Your task to perform on an android device: change your default location settings in chrome Image 0: 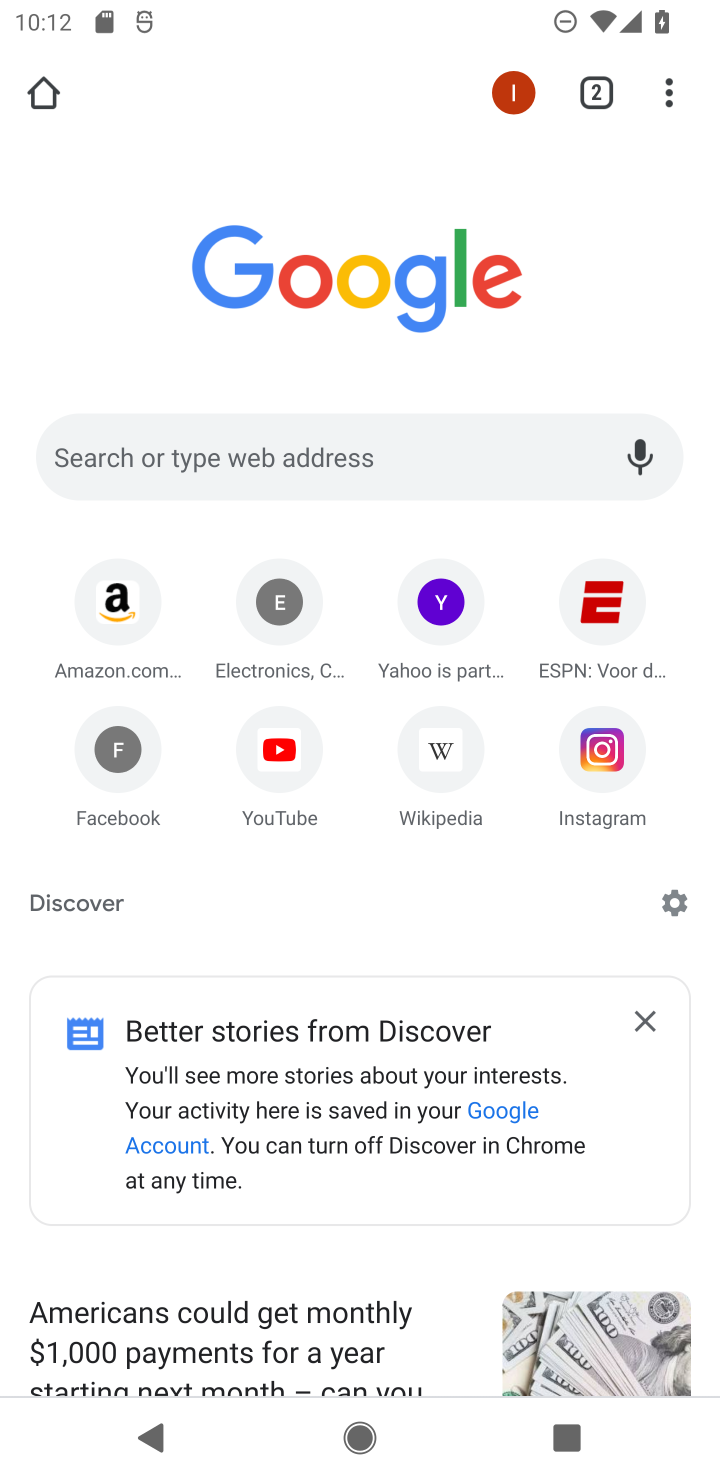
Step 0: click (662, 99)
Your task to perform on an android device: change your default location settings in chrome Image 1: 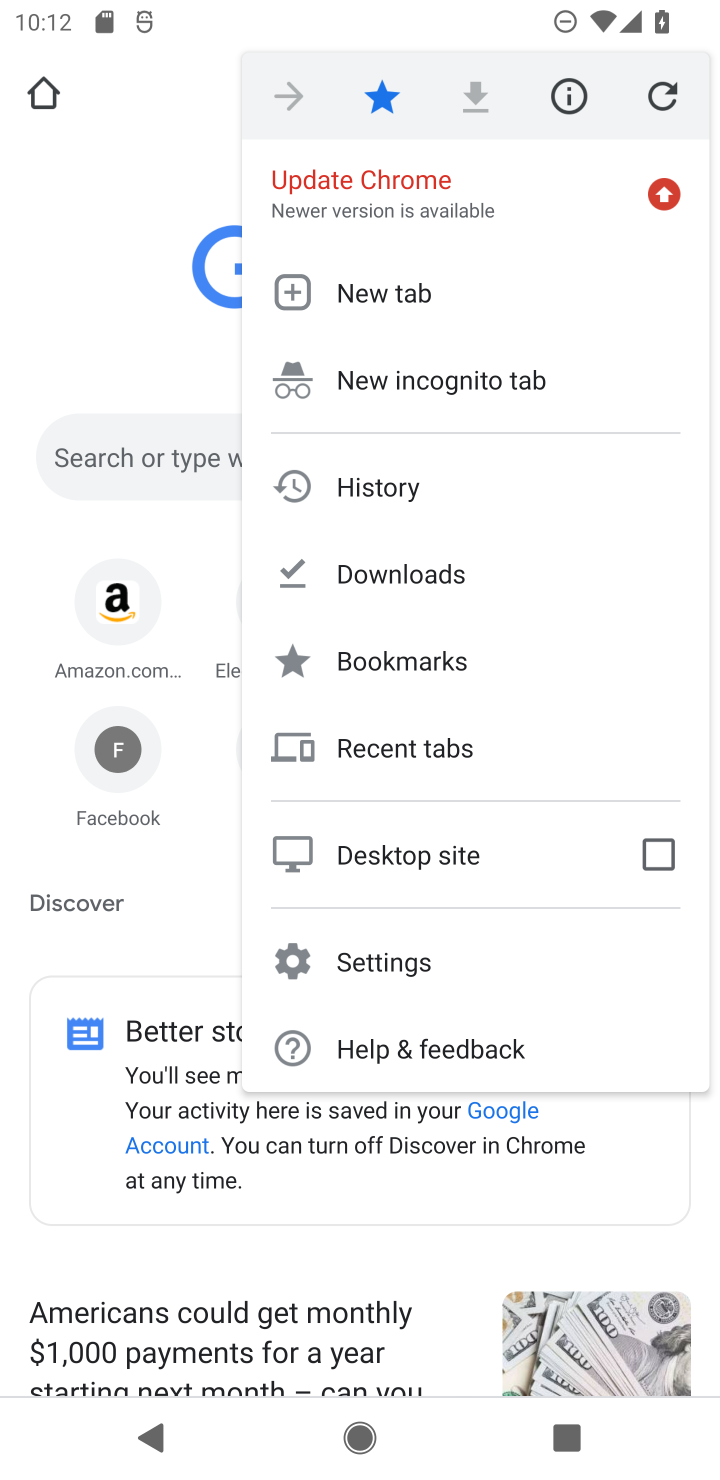
Step 1: click (407, 956)
Your task to perform on an android device: change your default location settings in chrome Image 2: 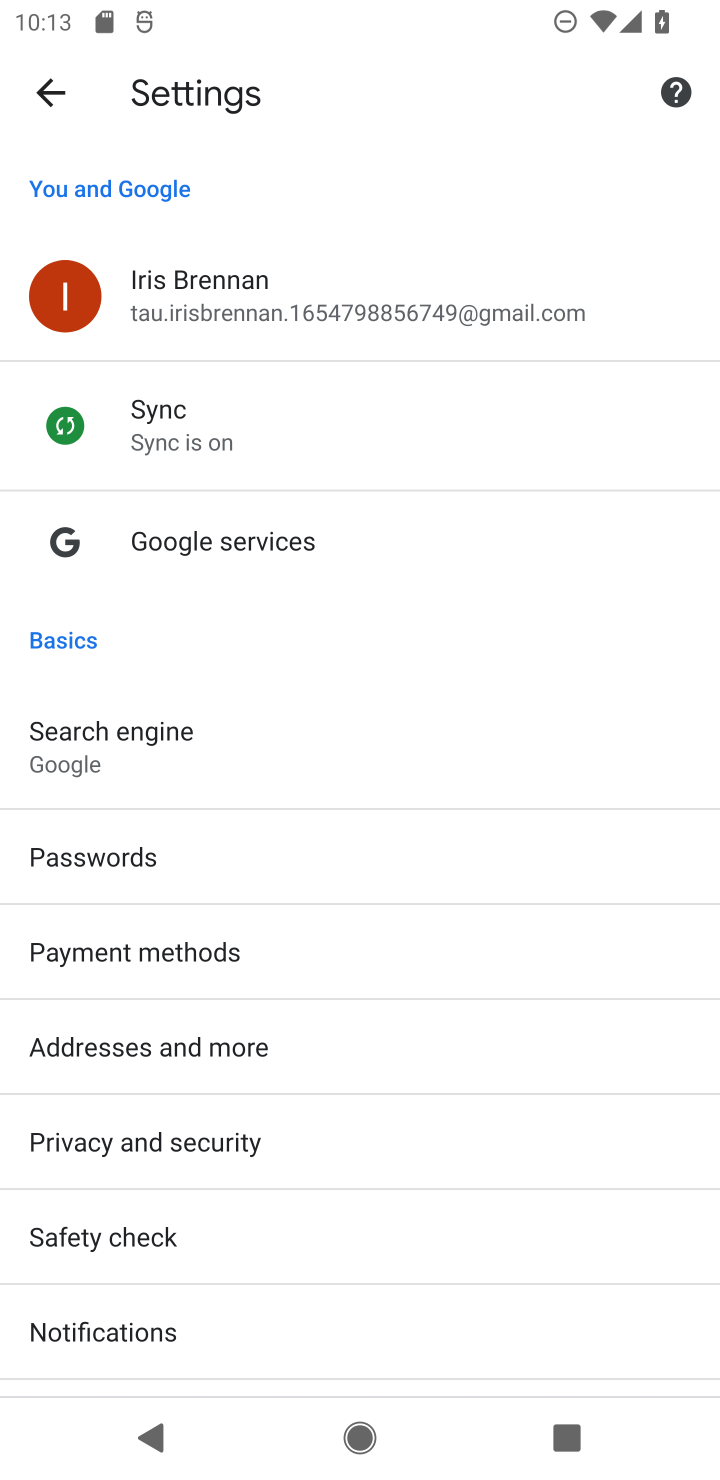
Step 2: drag from (174, 1188) to (172, 408)
Your task to perform on an android device: change your default location settings in chrome Image 3: 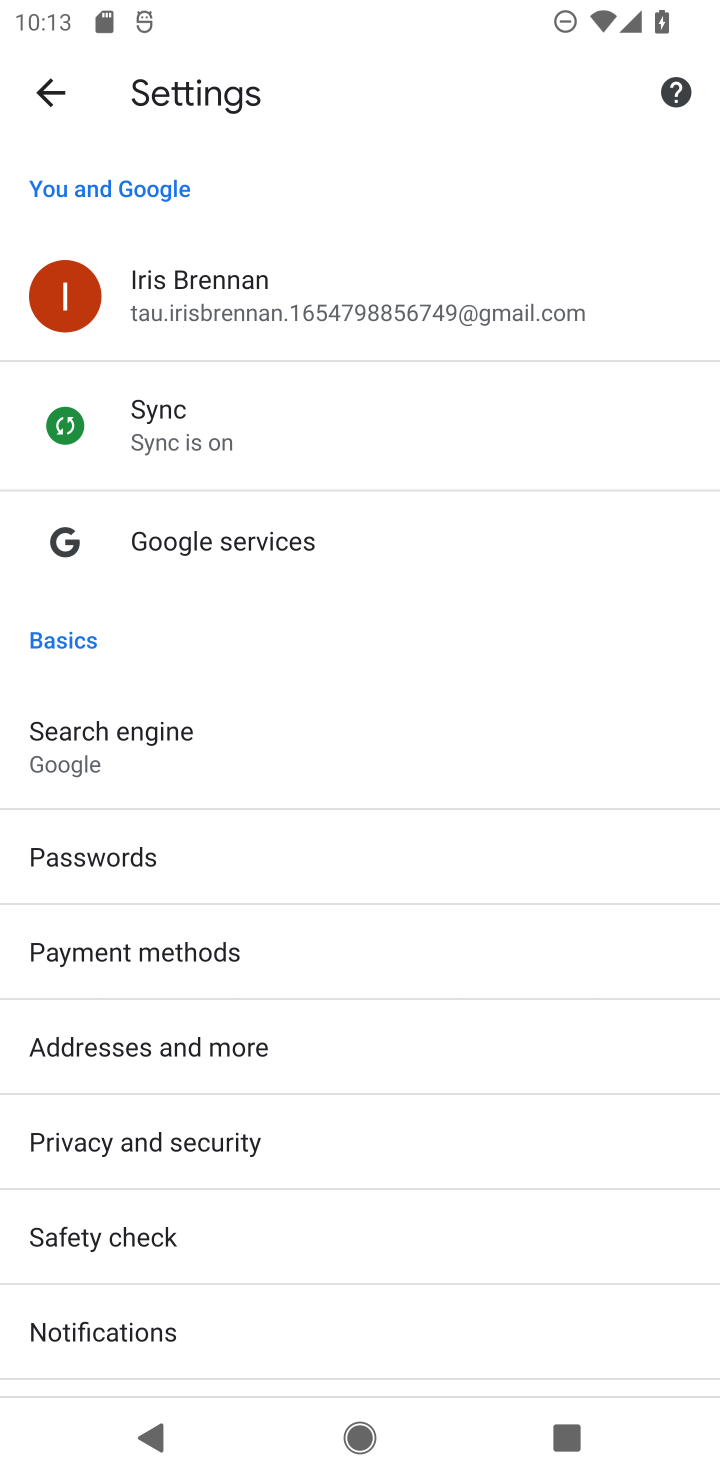
Step 3: drag from (385, 1039) to (472, 85)
Your task to perform on an android device: change your default location settings in chrome Image 4: 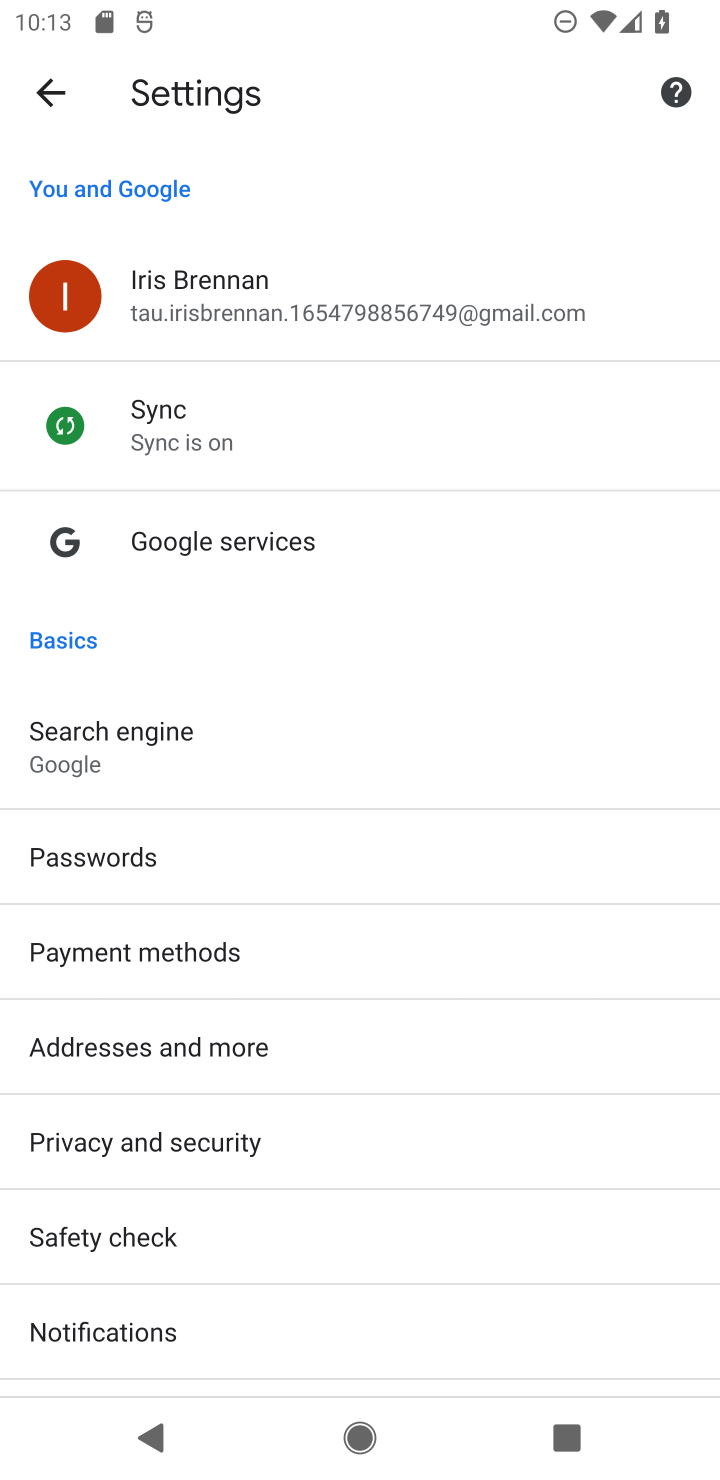
Step 4: drag from (252, 1223) to (298, 493)
Your task to perform on an android device: change your default location settings in chrome Image 5: 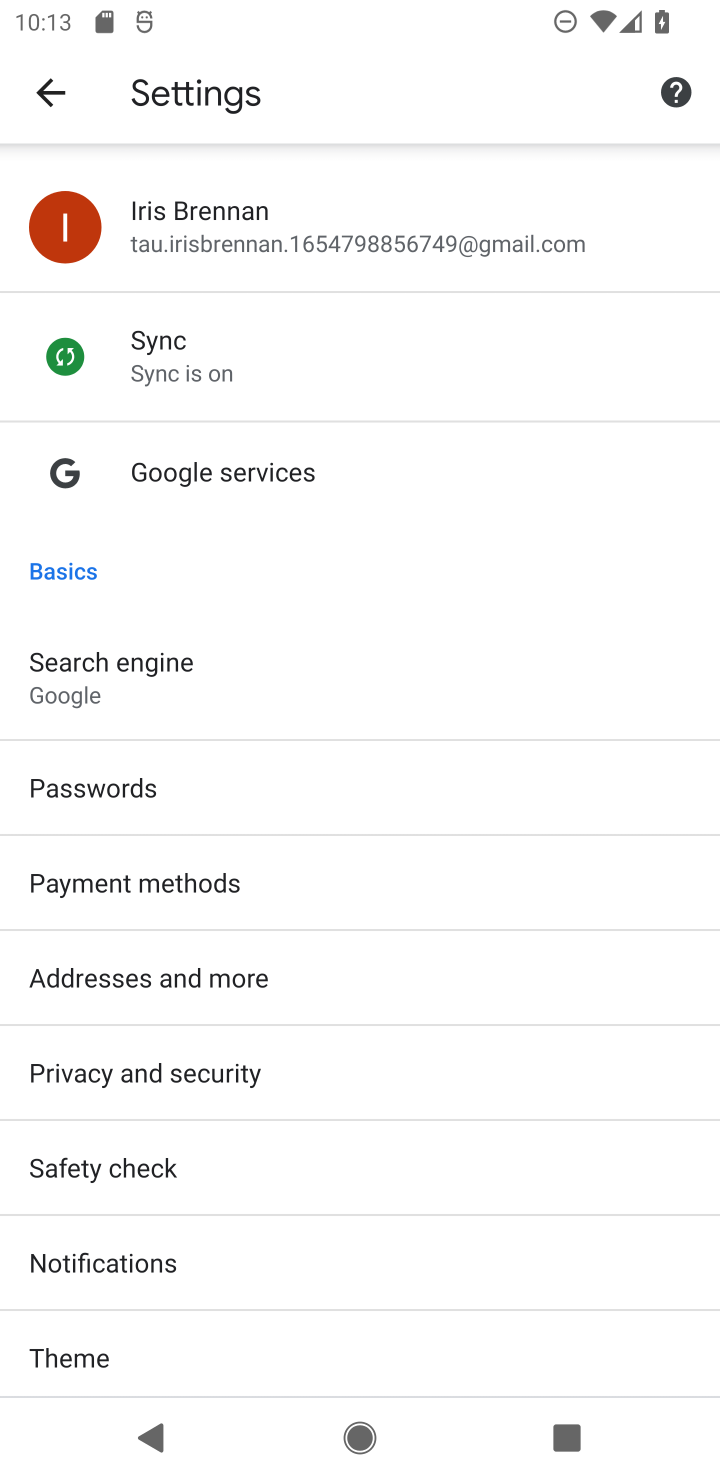
Step 5: drag from (203, 1252) to (156, 307)
Your task to perform on an android device: change your default location settings in chrome Image 6: 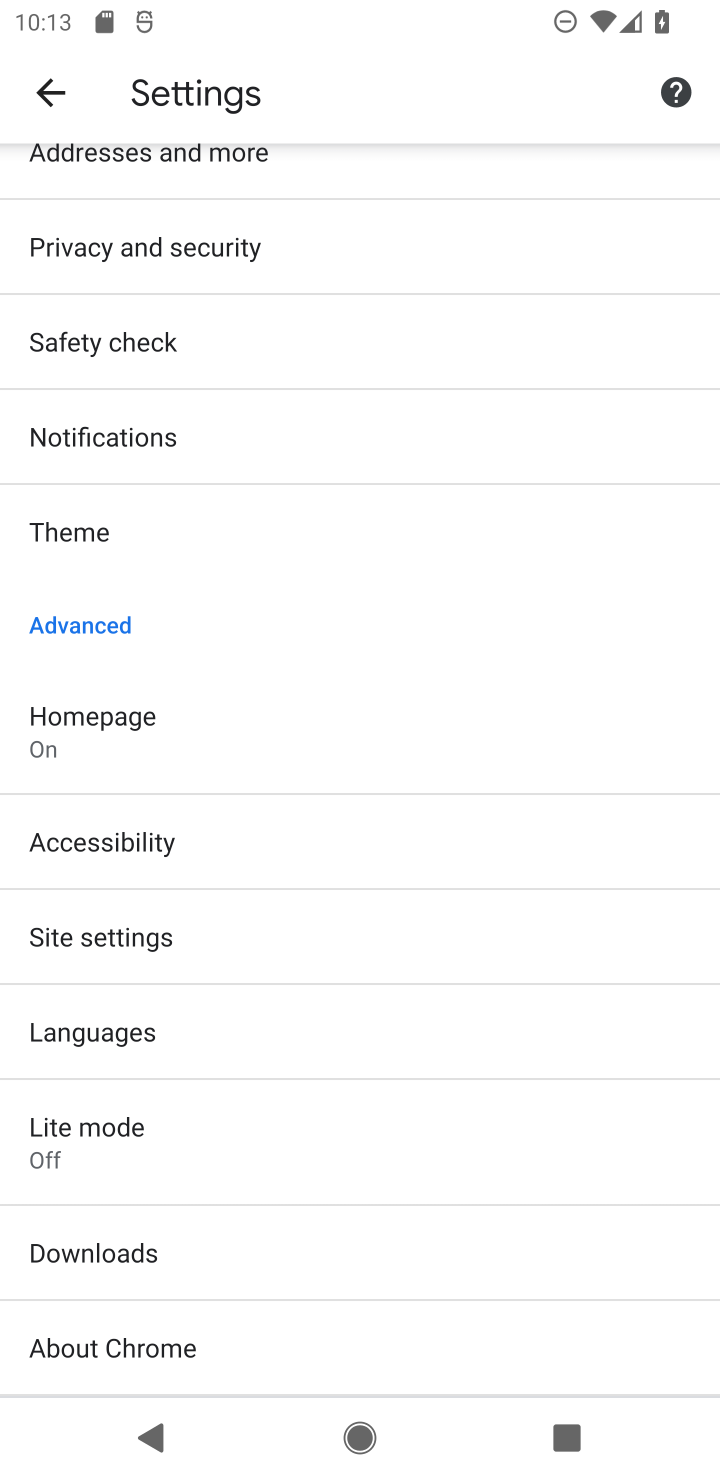
Step 6: click (163, 937)
Your task to perform on an android device: change your default location settings in chrome Image 7: 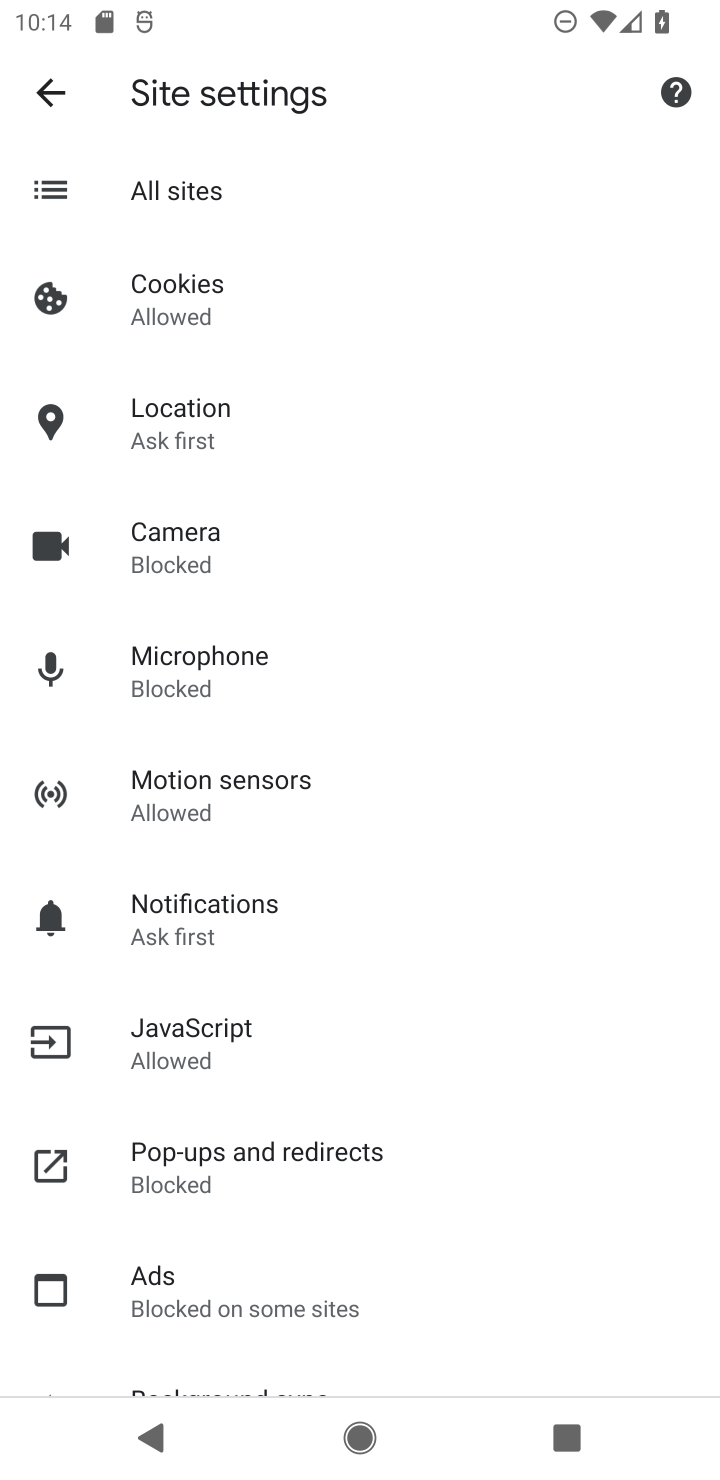
Step 7: click (202, 442)
Your task to perform on an android device: change your default location settings in chrome Image 8: 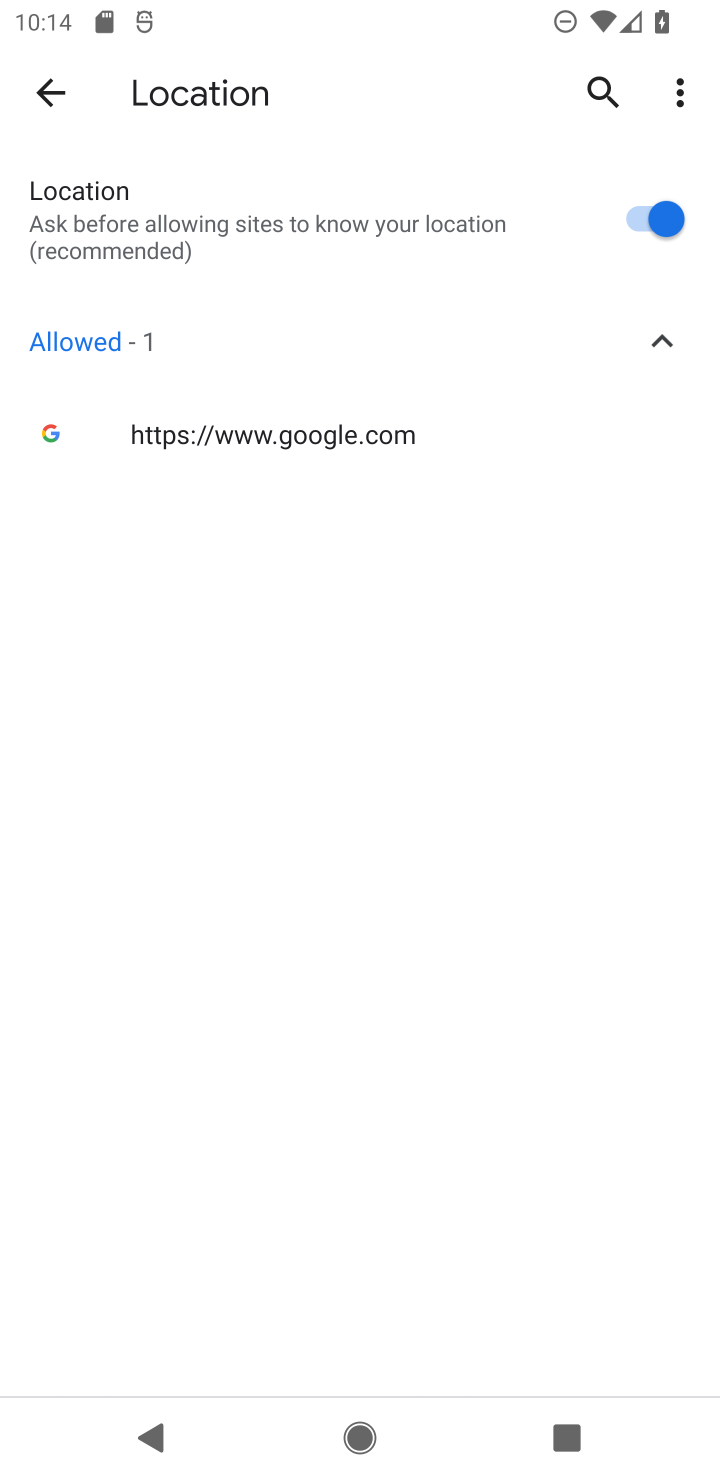
Step 8: click (622, 213)
Your task to perform on an android device: change your default location settings in chrome Image 9: 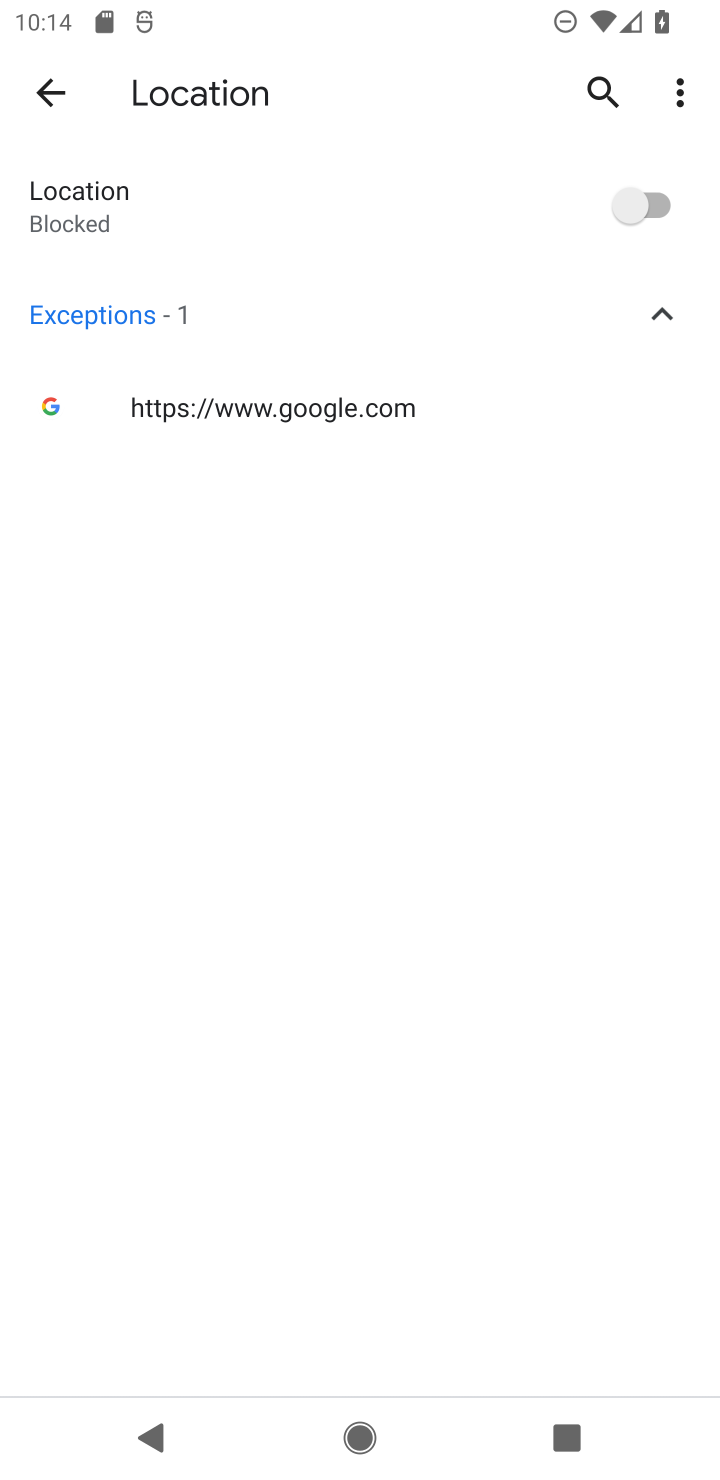
Step 9: task complete